Your task to perform on an android device: Open internet settings Image 0: 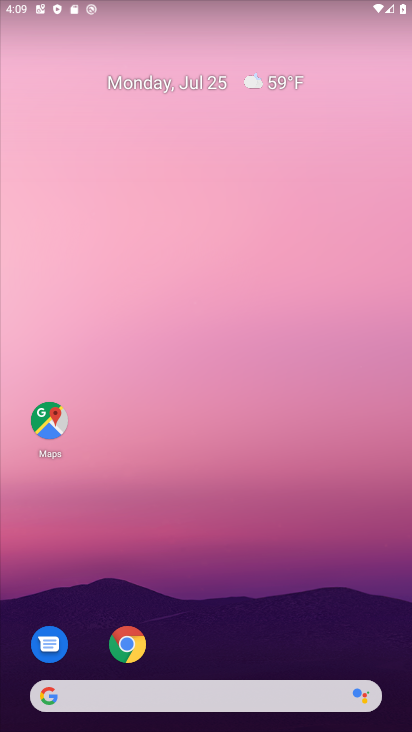
Step 0: drag from (227, 691) to (188, 96)
Your task to perform on an android device: Open internet settings Image 1: 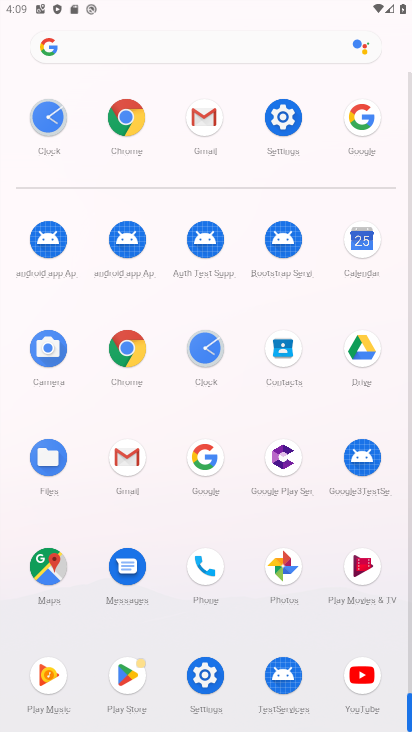
Step 1: click (281, 119)
Your task to perform on an android device: Open internet settings Image 2: 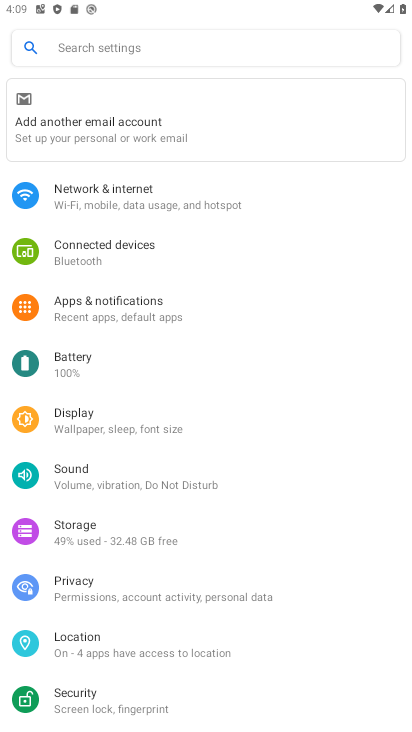
Step 2: click (127, 180)
Your task to perform on an android device: Open internet settings Image 3: 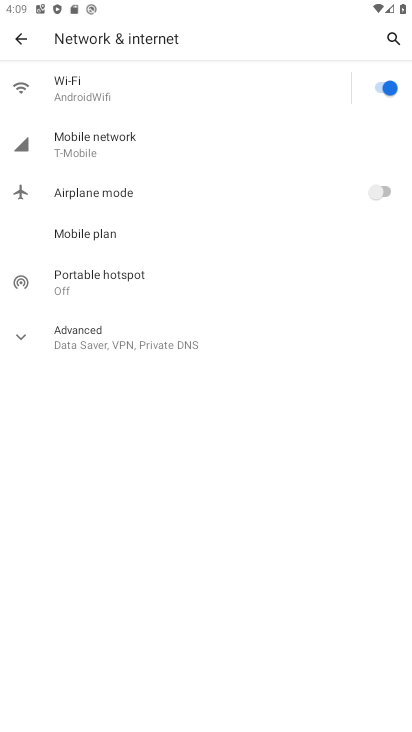
Step 3: click (62, 142)
Your task to perform on an android device: Open internet settings Image 4: 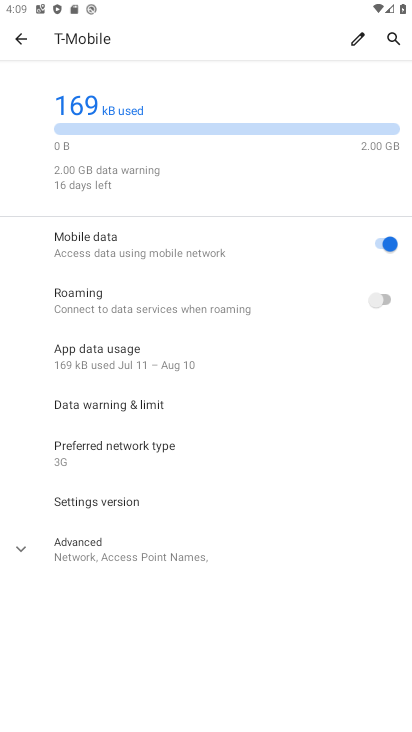
Step 4: task complete